Your task to perform on an android device: open app "Microsoft Authenticator" Image 0: 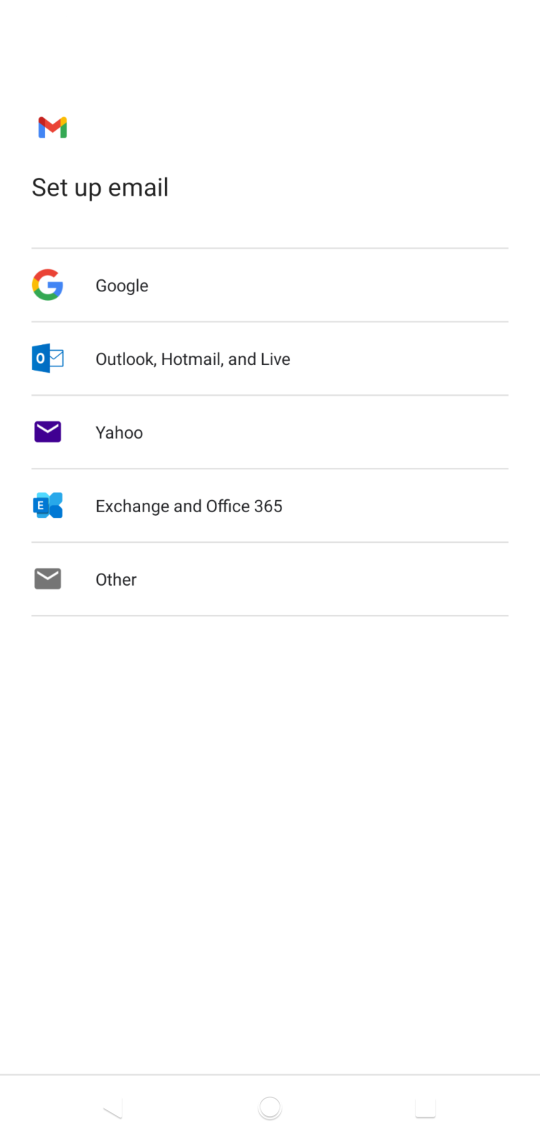
Step 0: press home button
Your task to perform on an android device: open app "Microsoft Authenticator" Image 1: 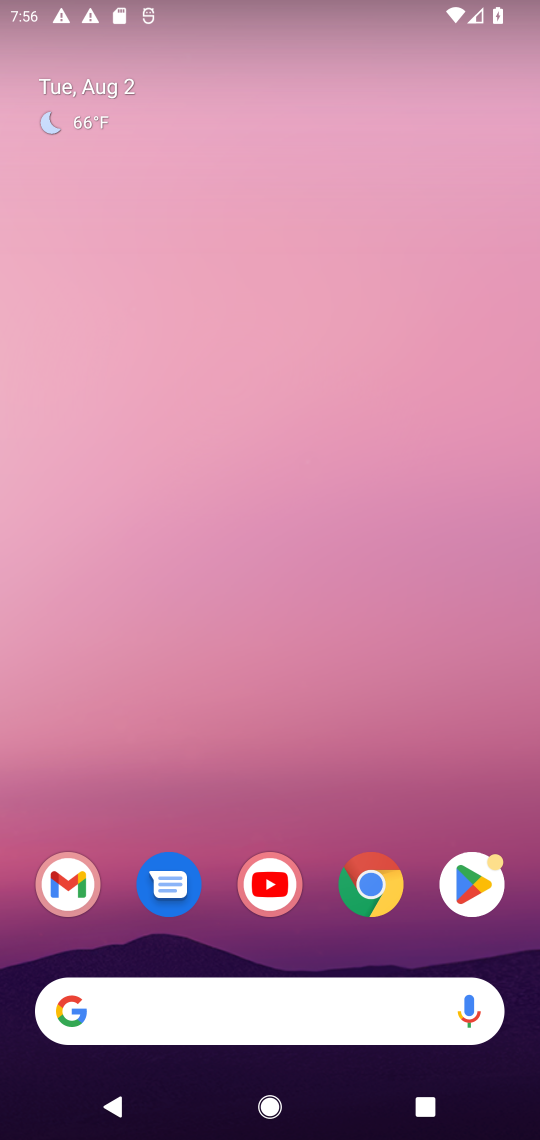
Step 1: click (498, 887)
Your task to perform on an android device: open app "Microsoft Authenticator" Image 2: 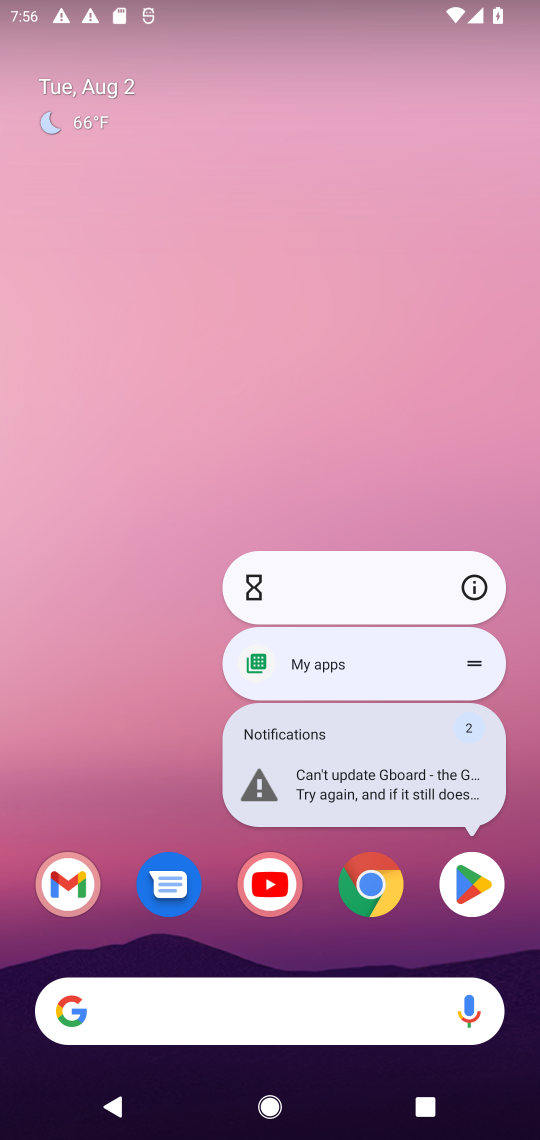
Step 2: click (474, 885)
Your task to perform on an android device: open app "Microsoft Authenticator" Image 3: 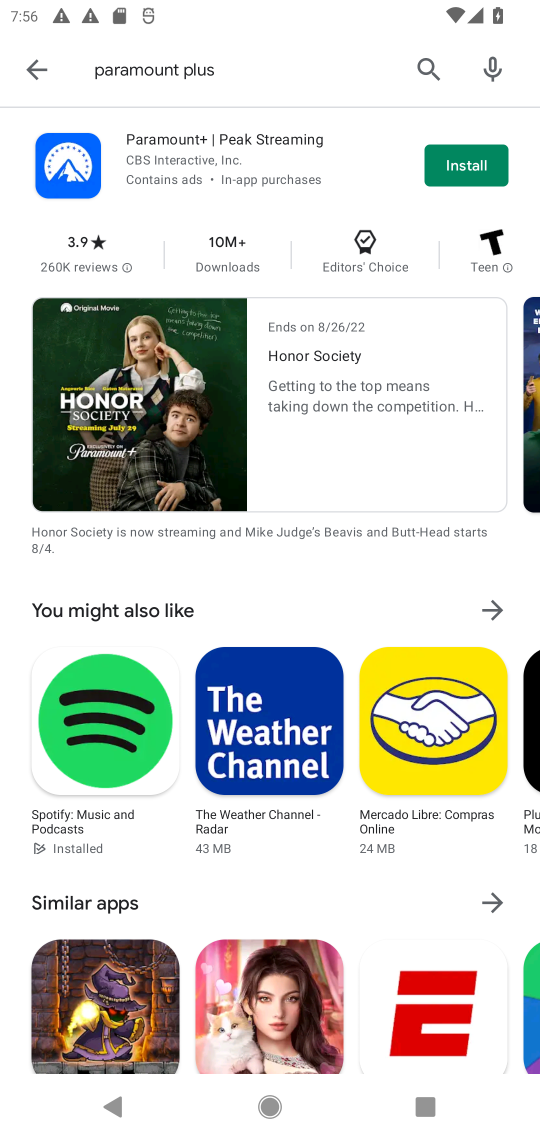
Step 3: click (420, 76)
Your task to perform on an android device: open app "Microsoft Authenticator" Image 4: 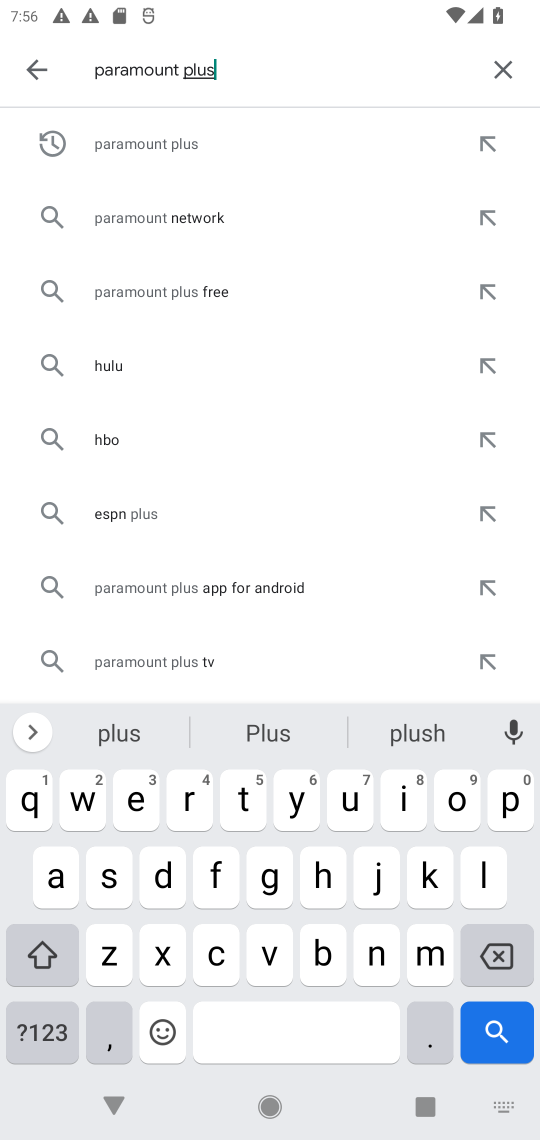
Step 4: click (496, 75)
Your task to perform on an android device: open app "Microsoft Authenticator" Image 5: 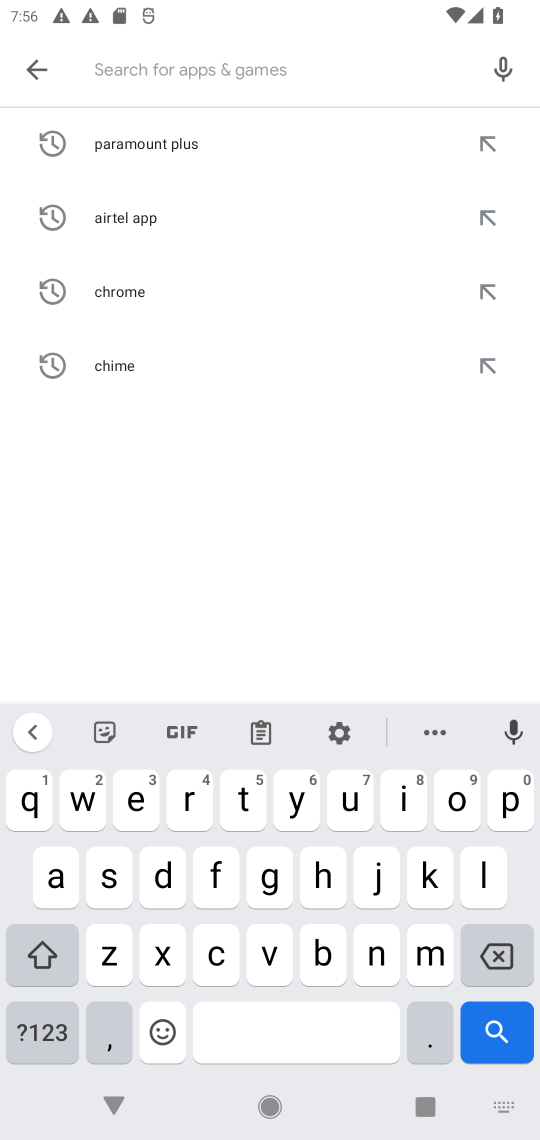
Step 5: click (424, 875)
Your task to perform on an android device: open app "Microsoft Authenticator" Image 6: 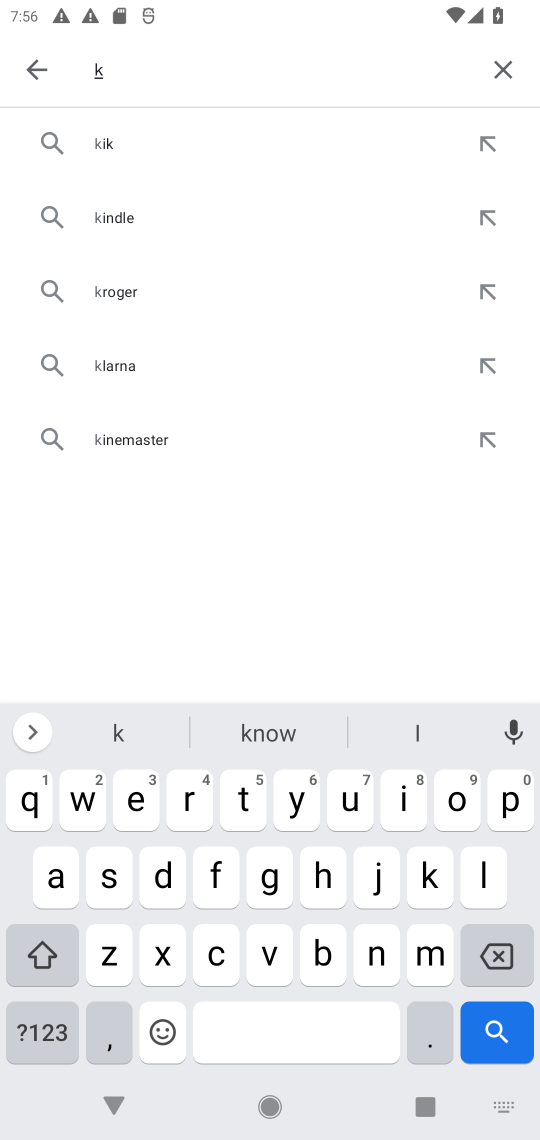
Step 6: click (53, 878)
Your task to perform on an android device: open app "Microsoft Authenticator" Image 7: 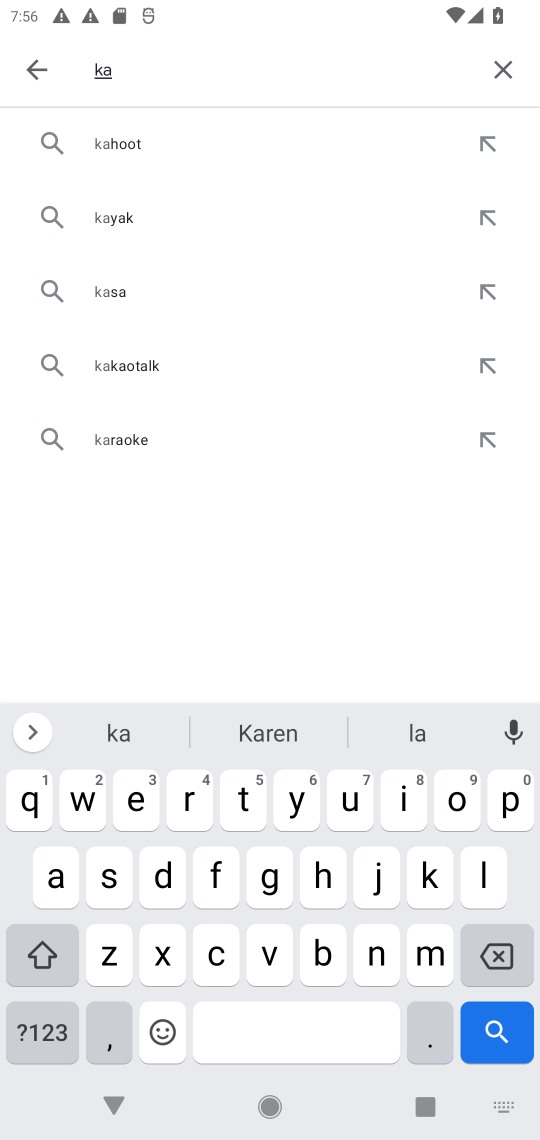
Step 7: click (492, 953)
Your task to perform on an android device: open app "Microsoft Authenticator" Image 8: 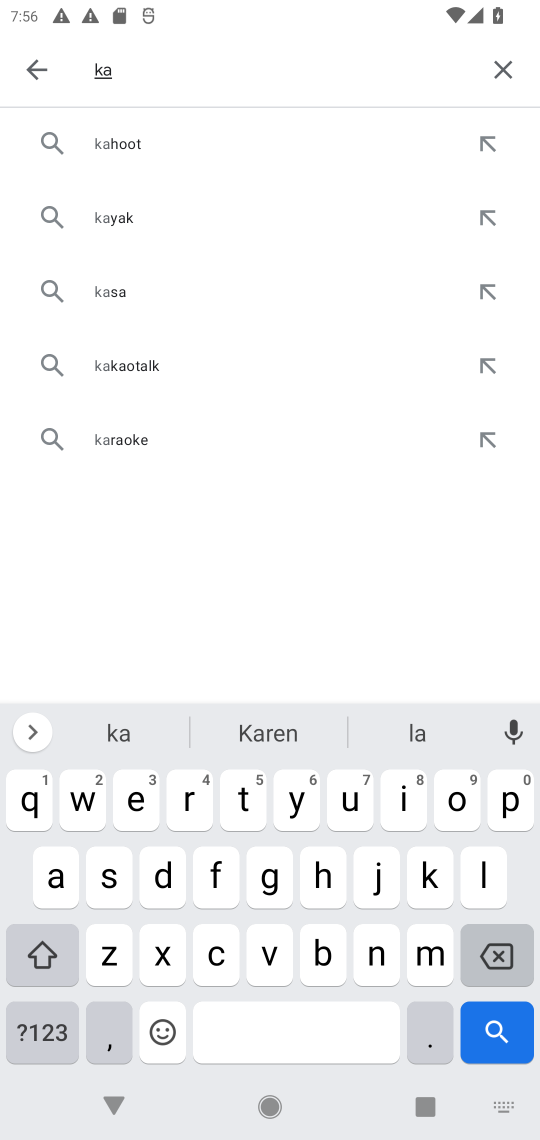
Step 8: click (492, 953)
Your task to perform on an android device: open app "Microsoft Authenticator" Image 9: 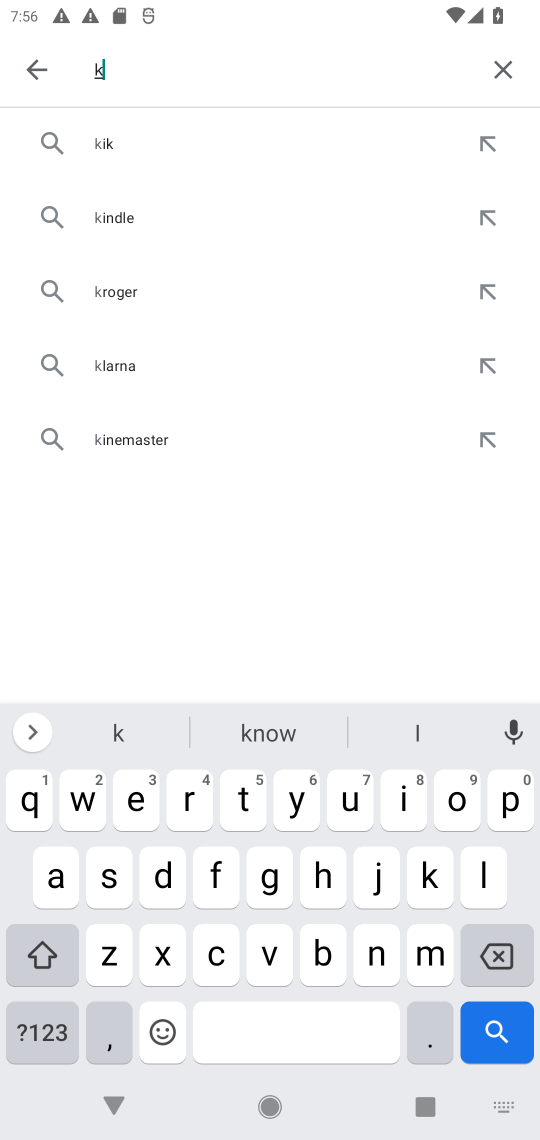
Step 9: click (492, 953)
Your task to perform on an android device: open app "Microsoft Authenticator" Image 10: 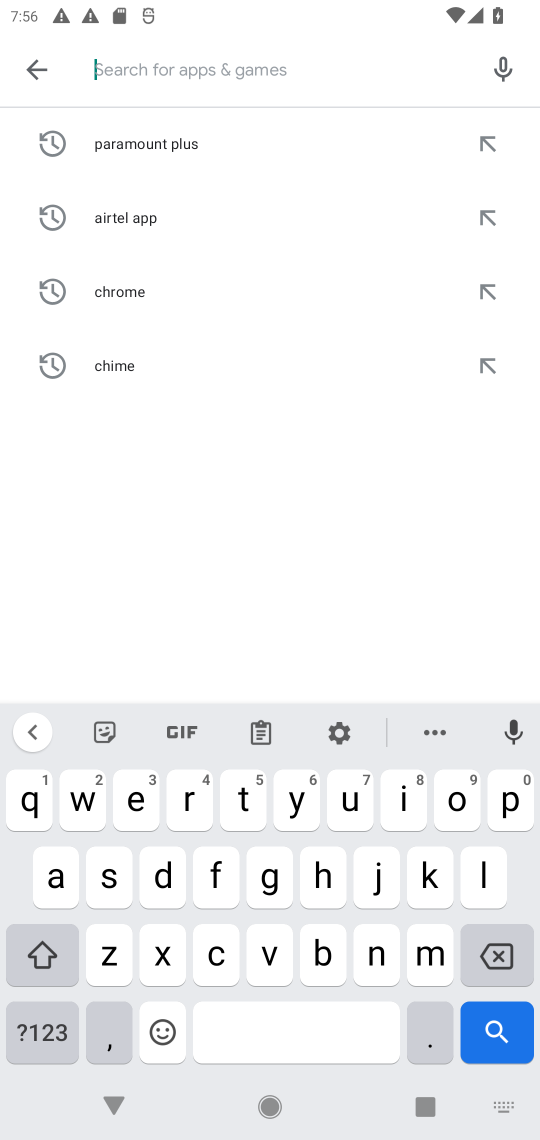
Step 10: click (56, 884)
Your task to perform on an android device: open app "Microsoft Authenticator" Image 11: 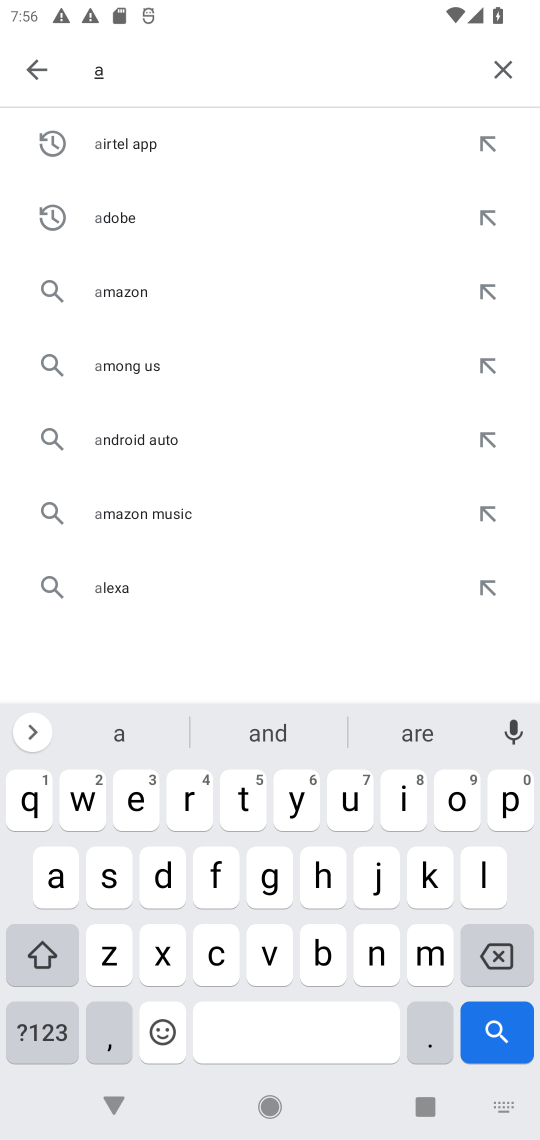
Step 11: click (350, 798)
Your task to perform on an android device: open app "Microsoft Authenticator" Image 12: 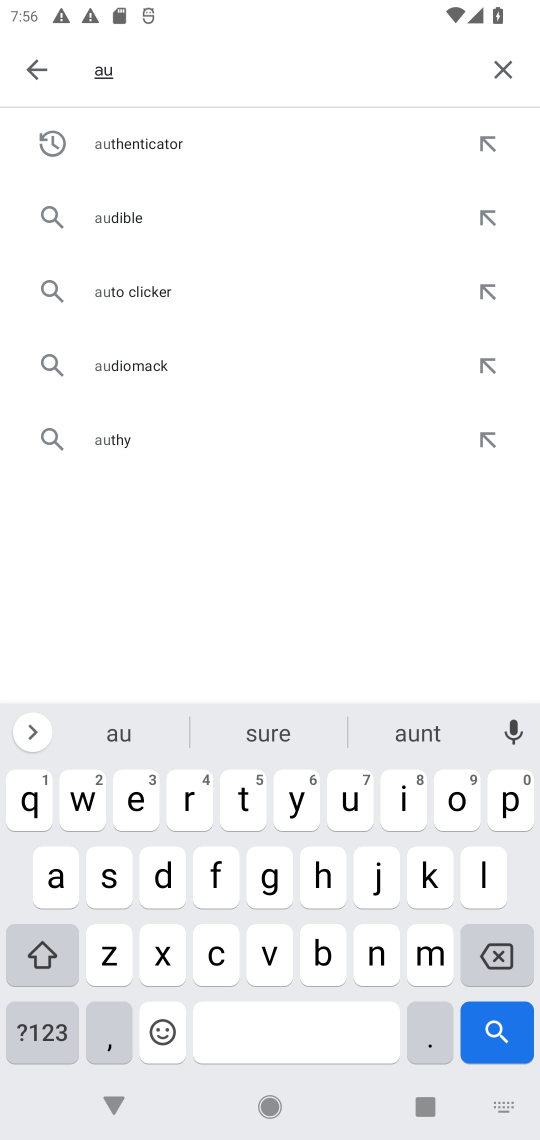
Step 12: click (241, 790)
Your task to perform on an android device: open app "Microsoft Authenticator" Image 13: 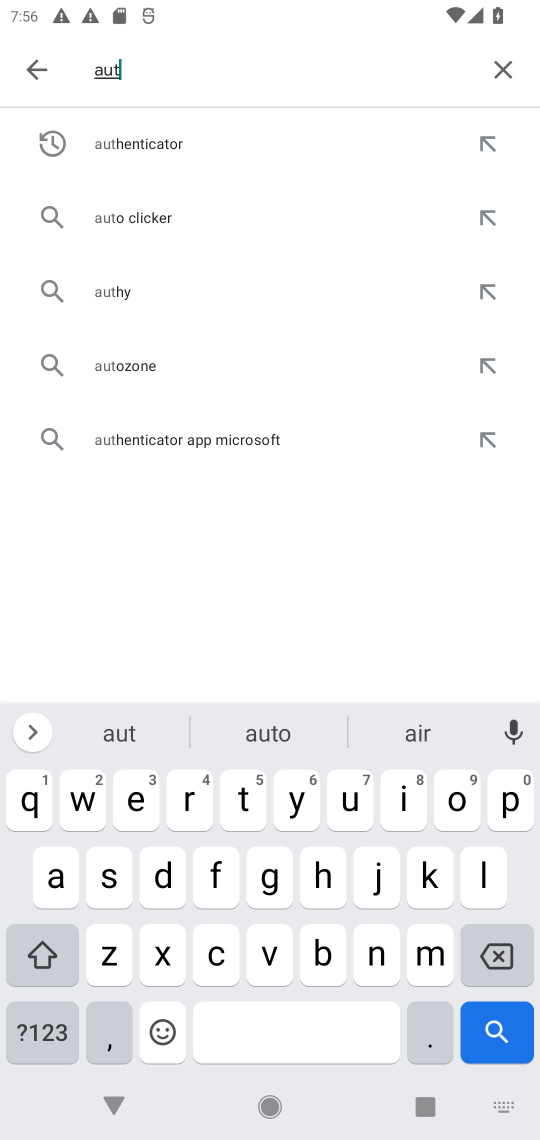
Step 13: click (169, 143)
Your task to perform on an android device: open app "Microsoft Authenticator" Image 14: 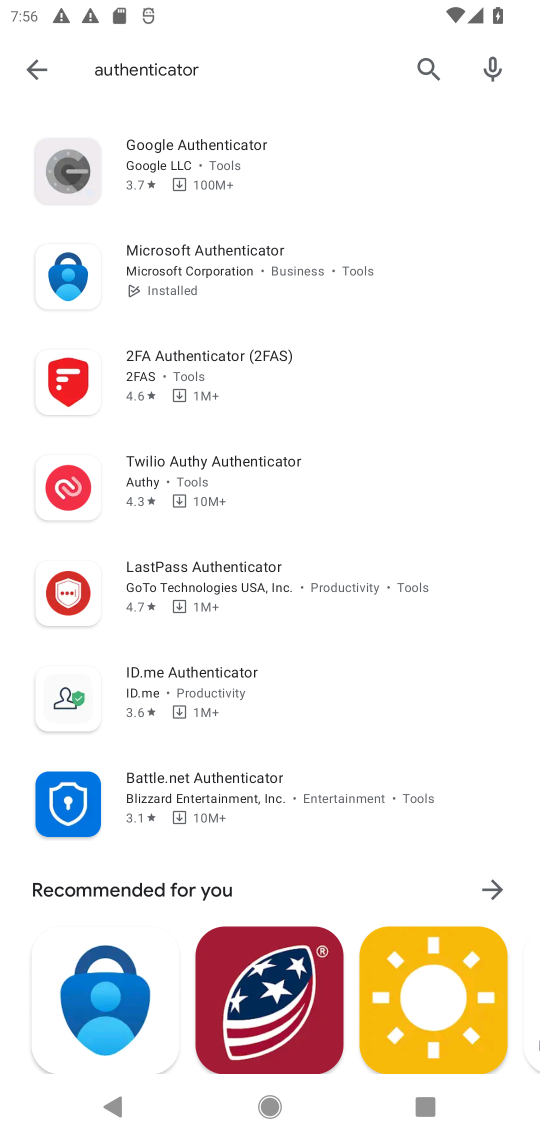
Step 14: click (121, 235)
Your task to perform on an android device: open app "Microsoft Authenticator" Image 15: 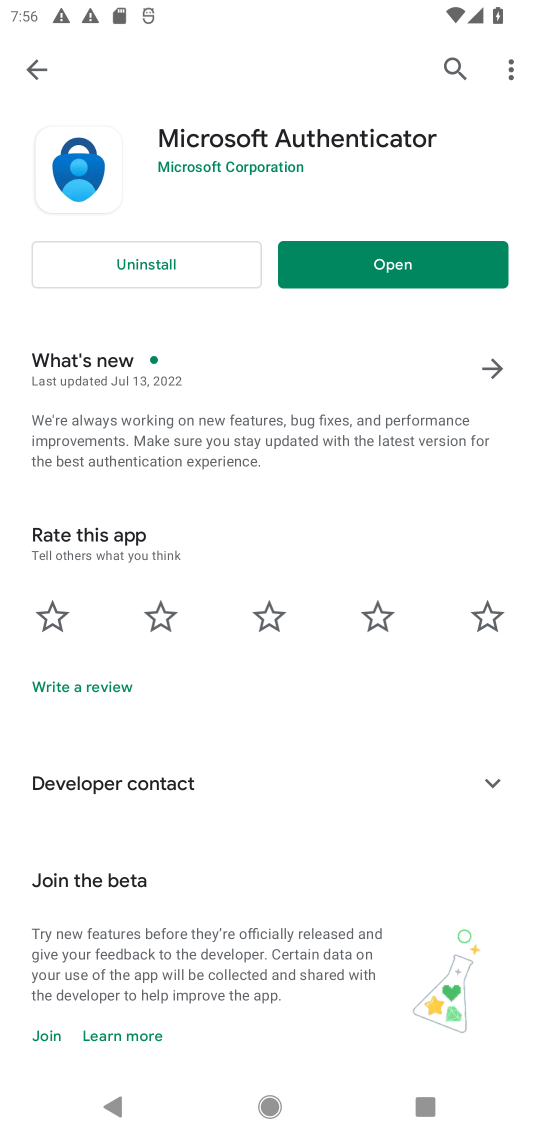
Step 15: click (404, 265)
Your task to perform on an android device: open app "Microsoft Authenticator" Image 16: 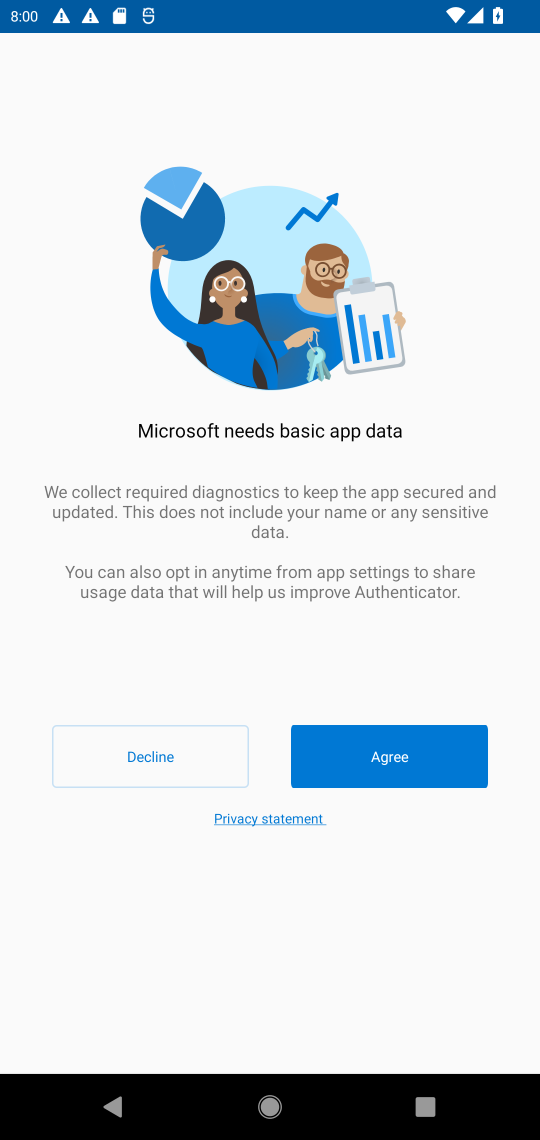
Step 16: task complete